Your task to perform on an android device: visit the assistant section in the google photos Image 0: 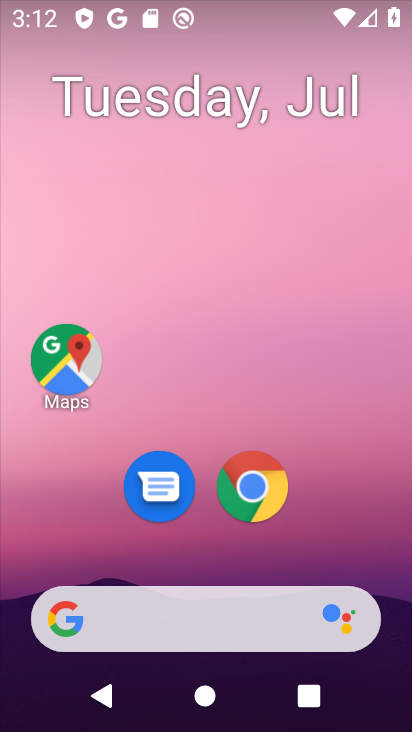
Step 0: drag from (173, 526) to (241, 14)
Your task to perform on an android device: visit the assistant section in the google photos Image 1: 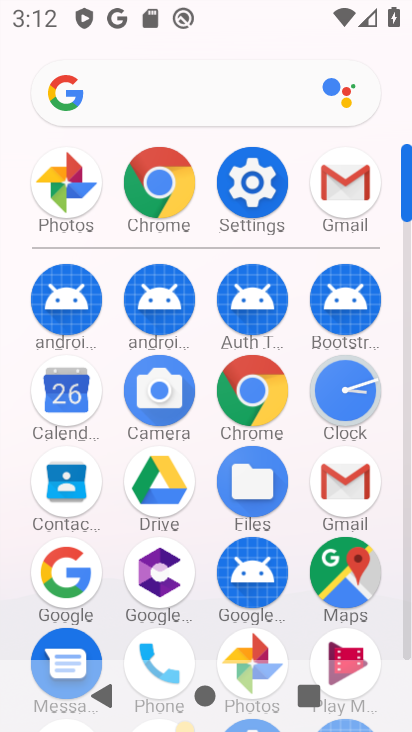
Step 1: click (251, 642)
Your task to perform on an android device: visit the assistant section in the google photos Image 2: 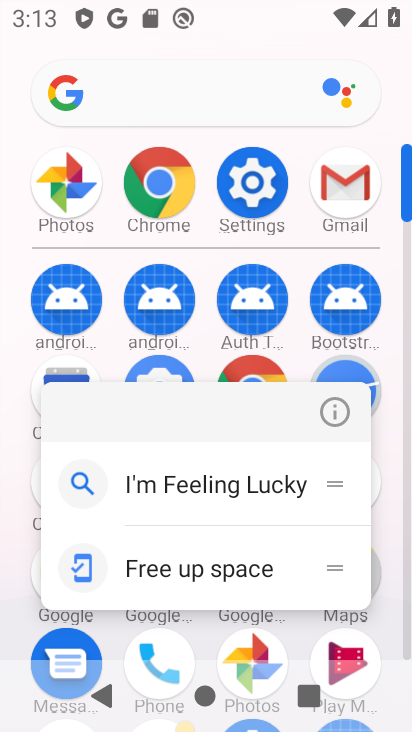
Step 2: click (250, 641)
Your task to perform on an android device: visit the assistant section in the google photos Image 3: 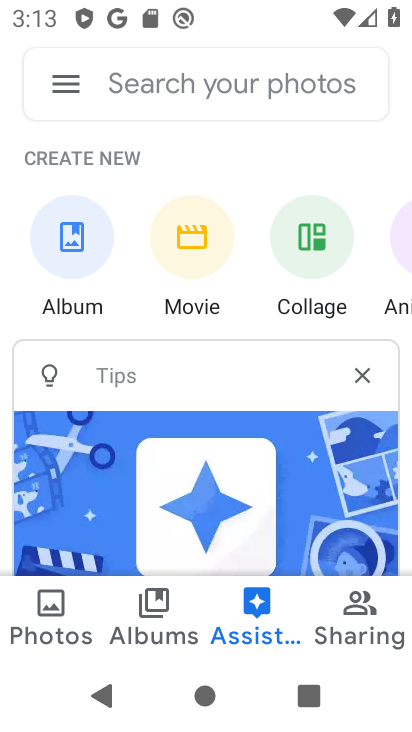
Step 3: task complete